Your task to perform on an android device: refresh tabs in the chrome app Image 0: 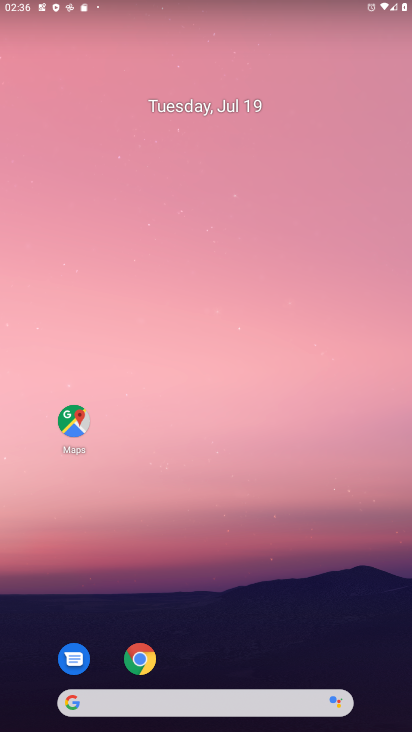
Step 0: drag from (236, 625) to (284, 122)
Your task to perform on an android device: refresh tabs in the chrome app Image 1: 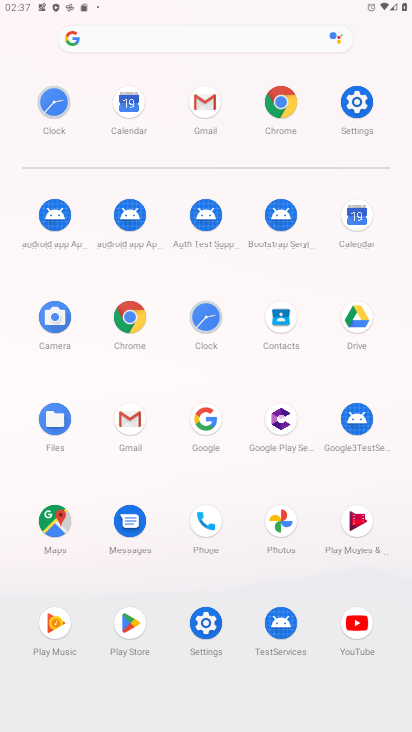
Step 1: click (286, 88)
Your task to perform on an android device: refresh tabs in the chrome app Image 2: 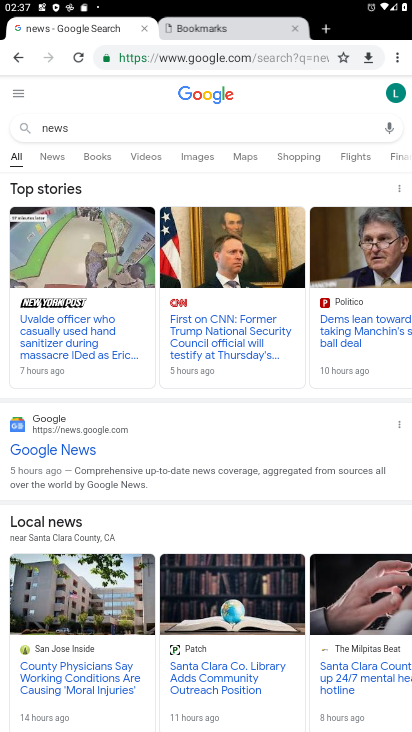
Step 2: click (393, 61)
Your task to perform on an android device: refresh tabs in the chrome app Image 3: 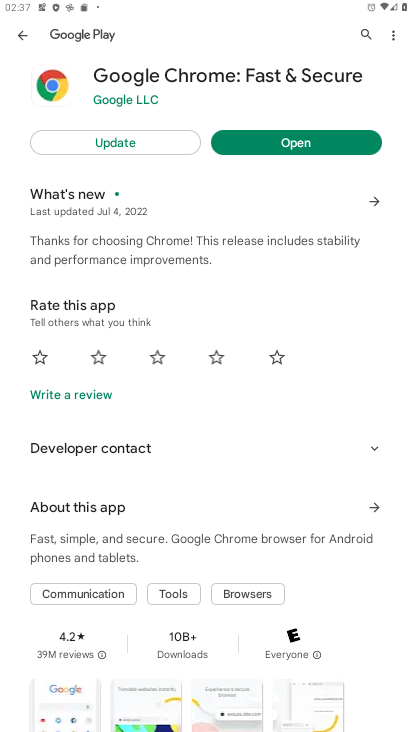
Step 3: click (26, 36)
Your task to perform on an android device: refresh tabs in the chrome app Image 4: 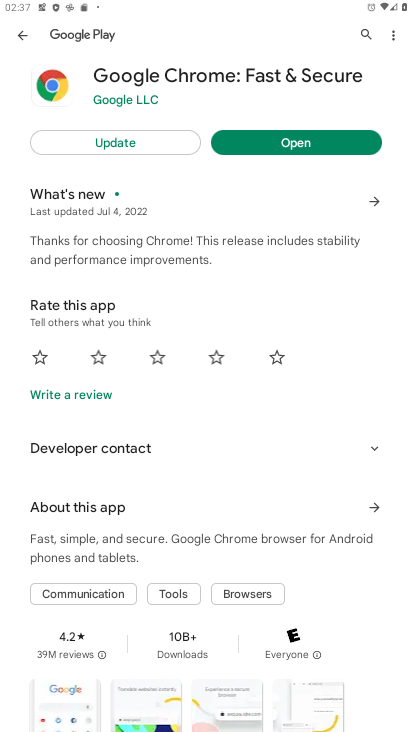
Step 4: press home button
Your task to perform on an android device: refresh tabs in the chrome app Image 5: 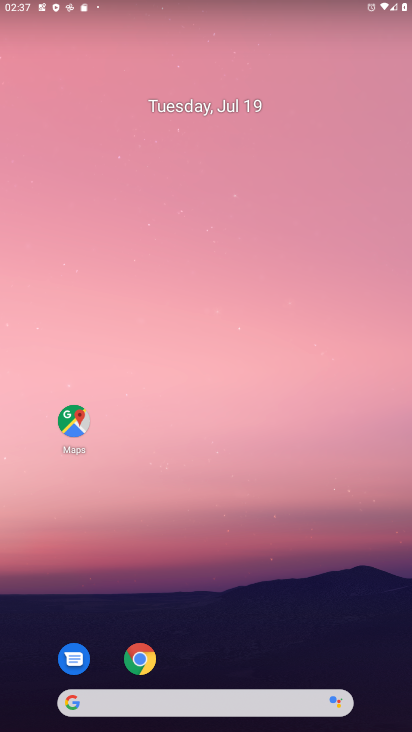
Step 5: click (126, 668)
Your task to perform on an android device: refresh tabs in the chrome app Image 6: 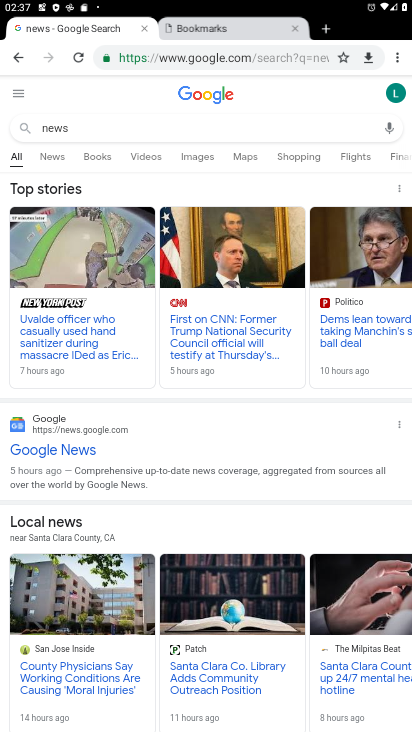
Step 6: click (74, 50)
Your task to perform on an android device: refresh tabs in the chrome app Image 7: 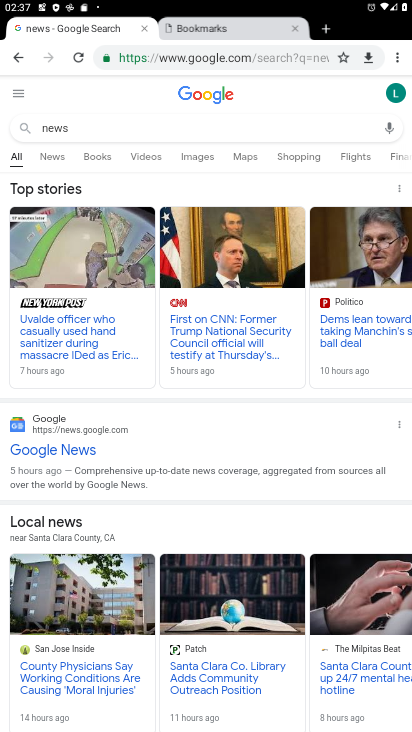
Step 7: task complete